Your task to perform on an android device: Go to privacy settings Image 0: 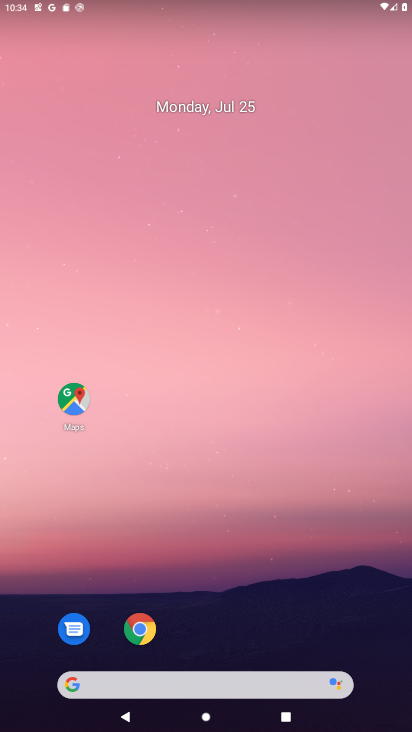
Step 0: drag from (223, 547) to (338, 14)
Your task to perform on an android device: Go to privacy settings Image 1: 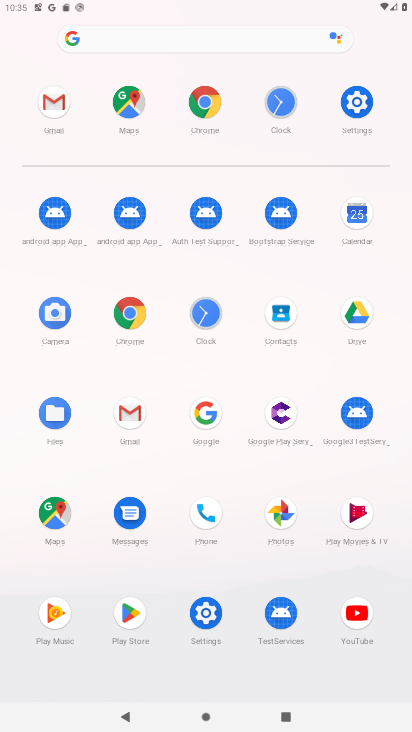
Step 1: click (212, 634)
Your task to perform on an android device: Go to privacy settings Image 2: 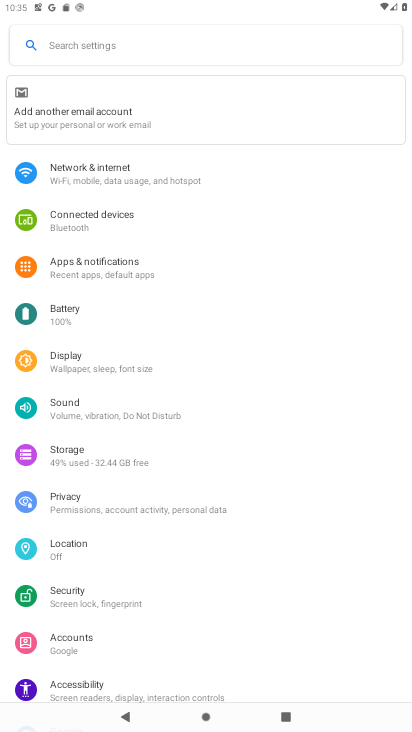
Step 2: click (79, 497)
Your task to perform on an android device: Go to privacy settings Image 3: 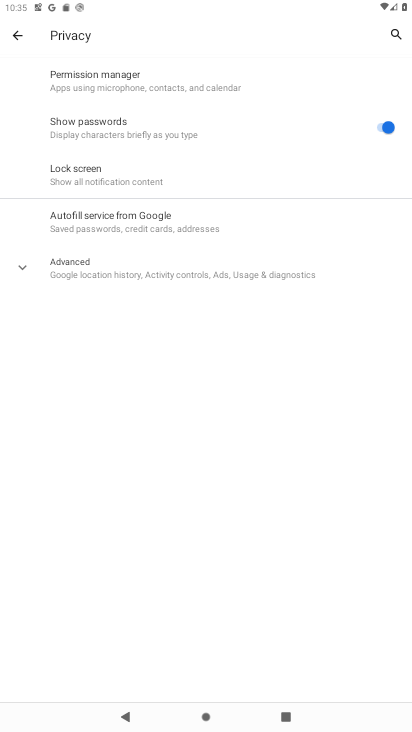
Step 3: task complete